Your task to perform on an android device: Do I have any events today? Image 0: 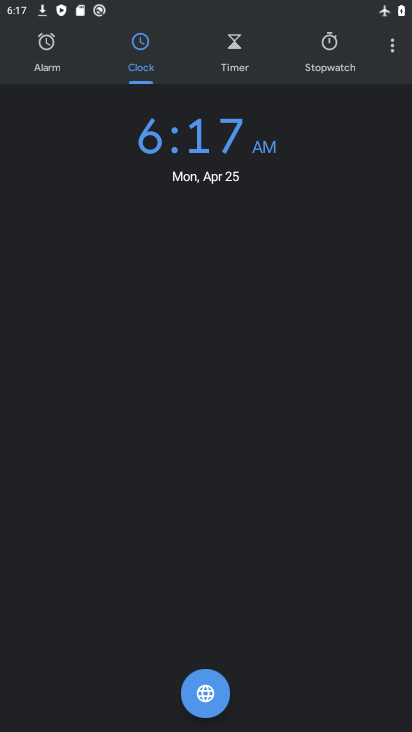
Step 0: press home button
Your task to perform on an android device: Do I have any events today? Image 1: 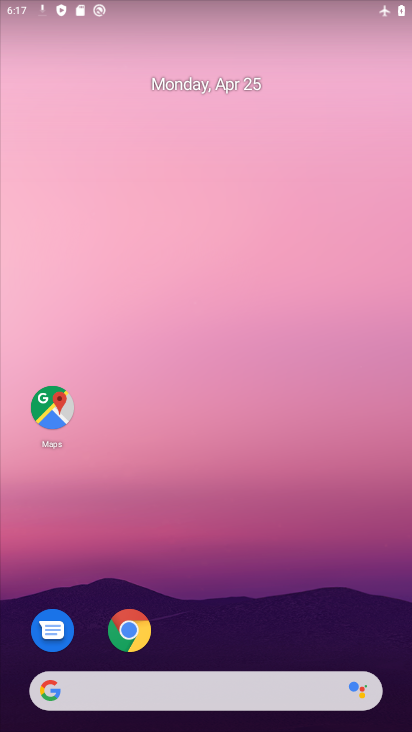
Step 1: drag from (221, 600) to (206, 42)
Your task to perform on an android device: Do I have any events today? Image 2: 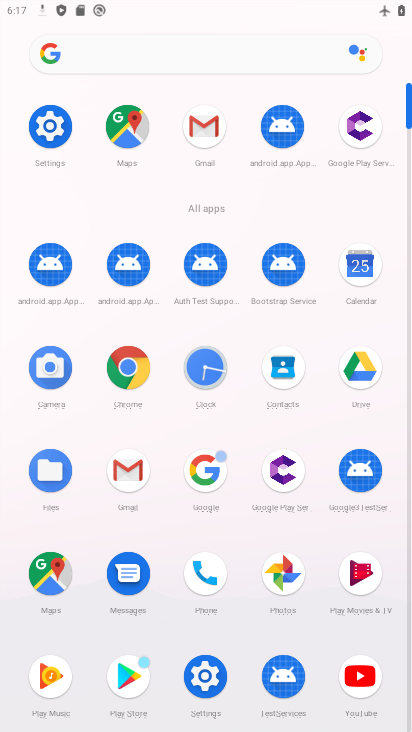
Step 2: click (357, 267)
Your task to perform on an android device: Do I have any events today? Image 3: 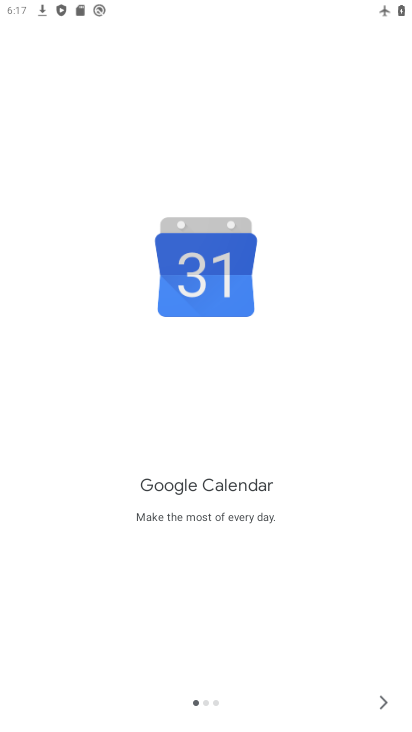
Step 3: click (380, 702)
Your task to perform on an android device: Do I have any events today? Image 4: 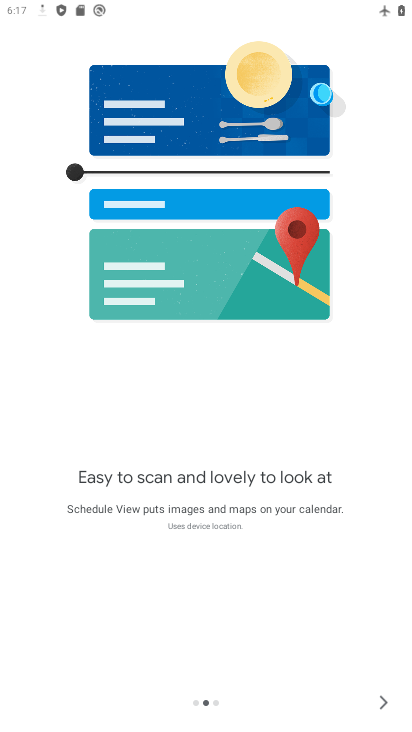
Step 4: click (380, 702)
Your task to perform on an android device: Do I have any events today? Image 5: 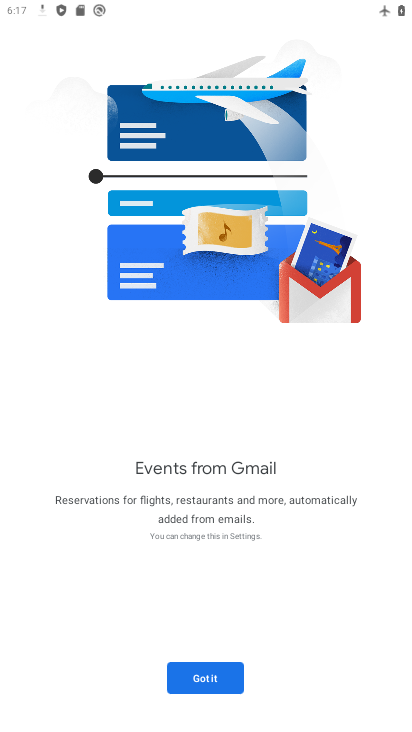
Step 5: click (207, 672)
Your task to perform on an android device: Do I have any events today? Image 6: 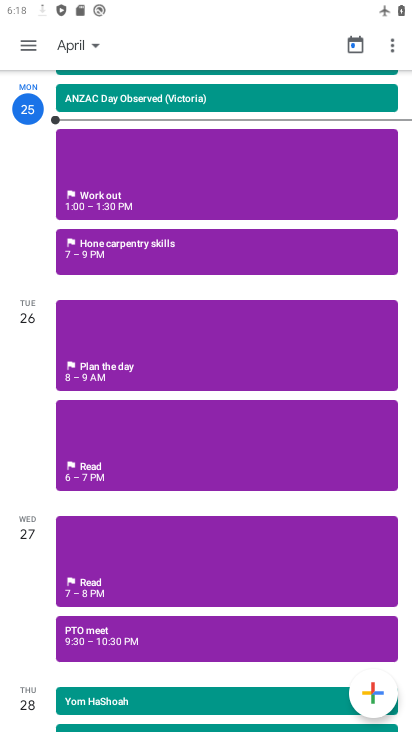
Step 6: task complete